Your task to perform on an android device: Open privacy settings Image 0: 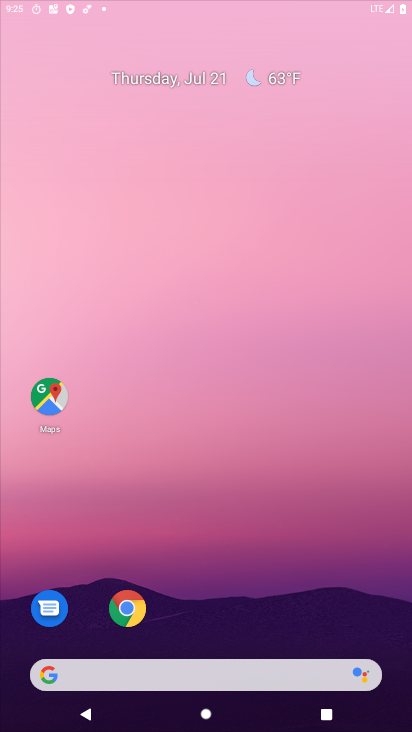
Step 0: click (397, 503)
Your task to perform on an android device: Open privacy settings Image 1: 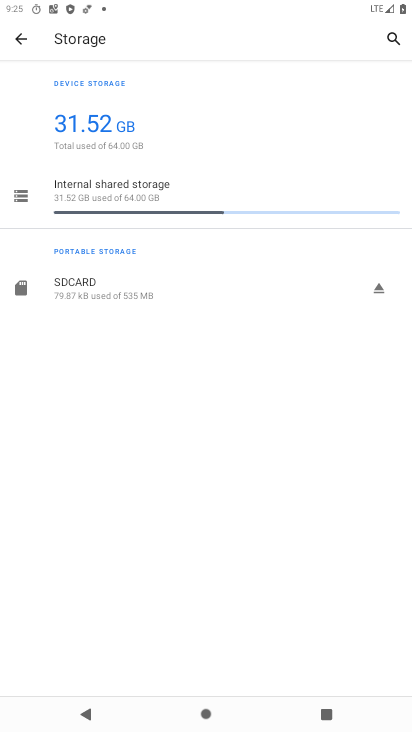
Step 1: press home button
Your task to perform on an android device: Open privacy settings Image 2: 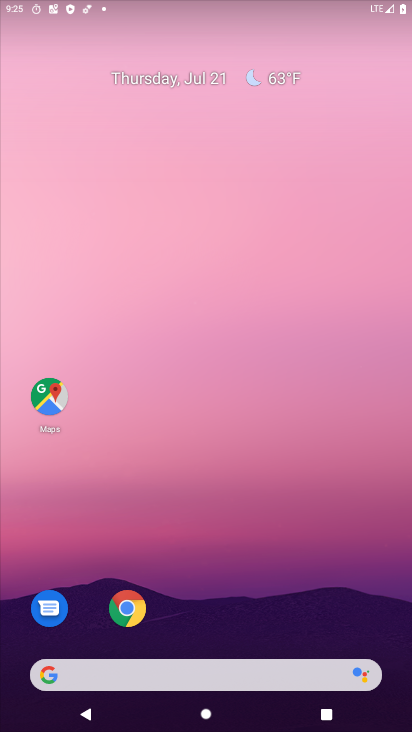
Step 2: drag from (243, 564) to (198, 0)
Your task to perform on an android device: Open privacy settings Image 3: 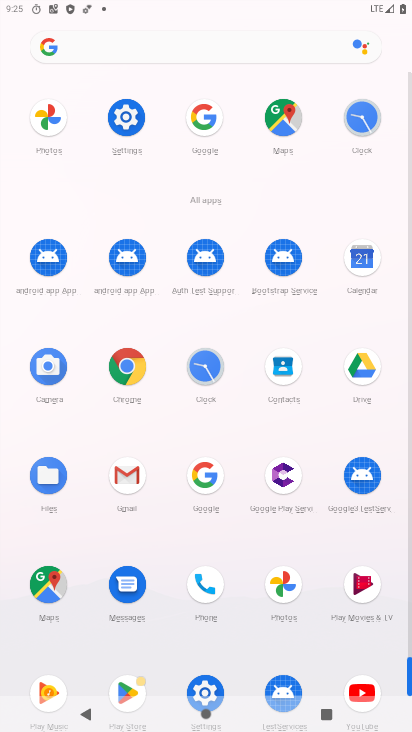
Step 3: click (125, 139)
Your task to perform on an android device: Open privacy settings Image 4: 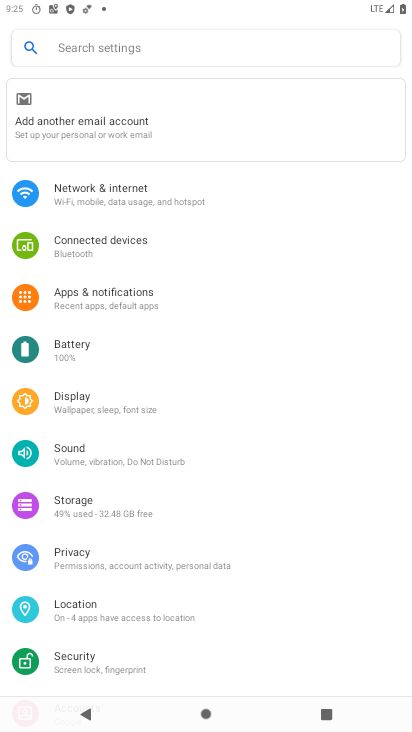
Step 4: click (123, 558)
Your task to perform on an android device: Open privacy settings Image 5: 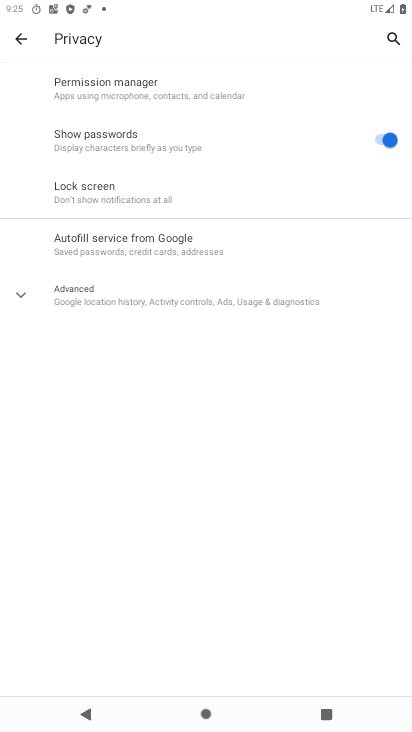
Step 5: task complete